Your task to perform on an android device: choose inbox layout in the gmail app Image 0: 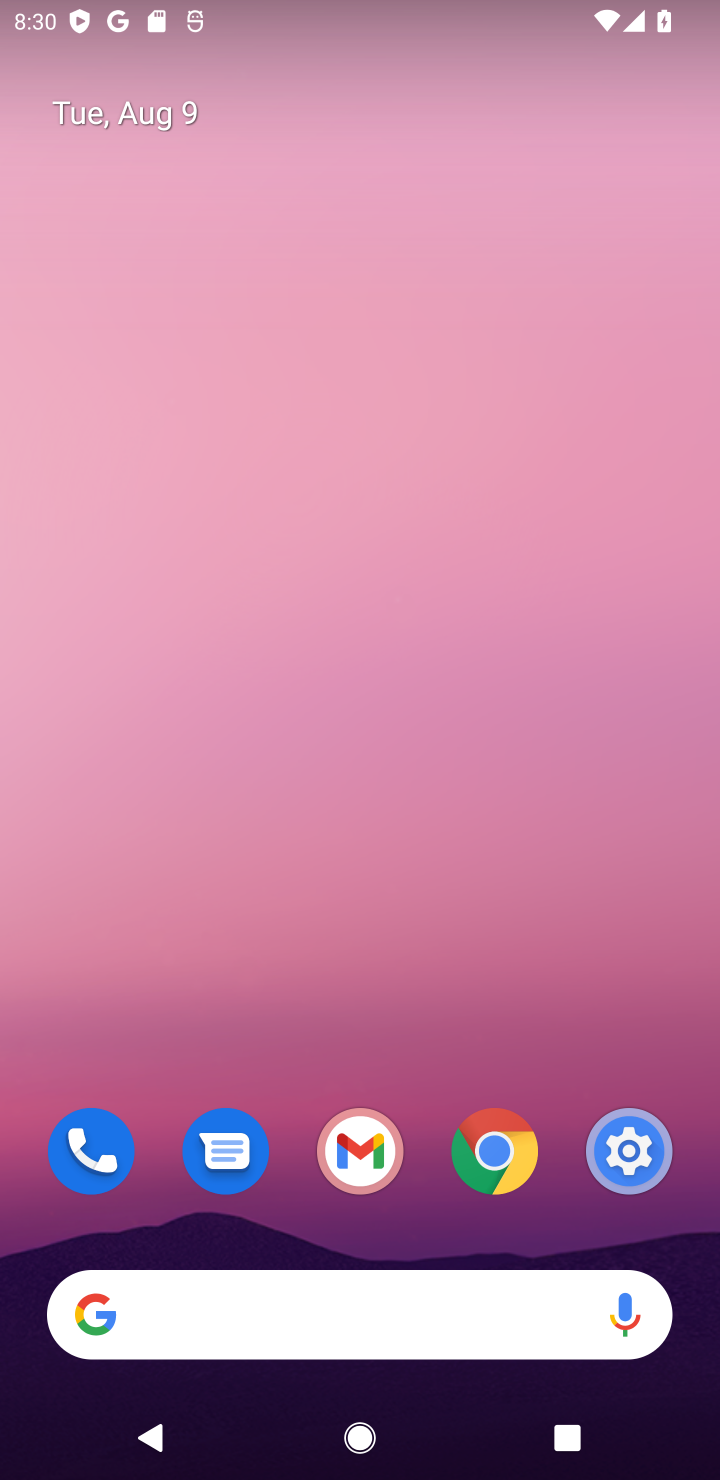
Step 0: click (346, 1148)
Your task to perform on an android device: choose inbox layout in the gmail app Image 1: 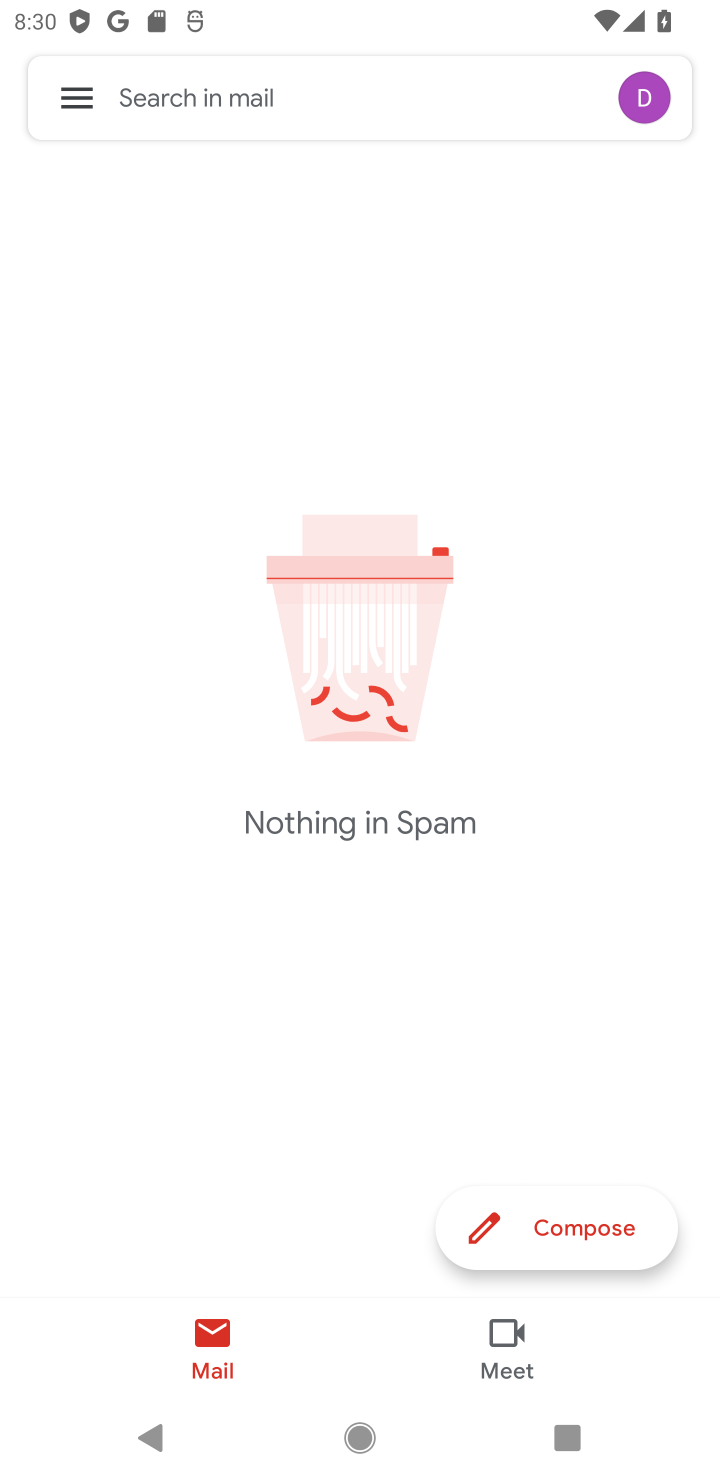
Step 1: click (90, 84)
Your task to perform on an android device: choose inbox layout in the gmail app Image 2: 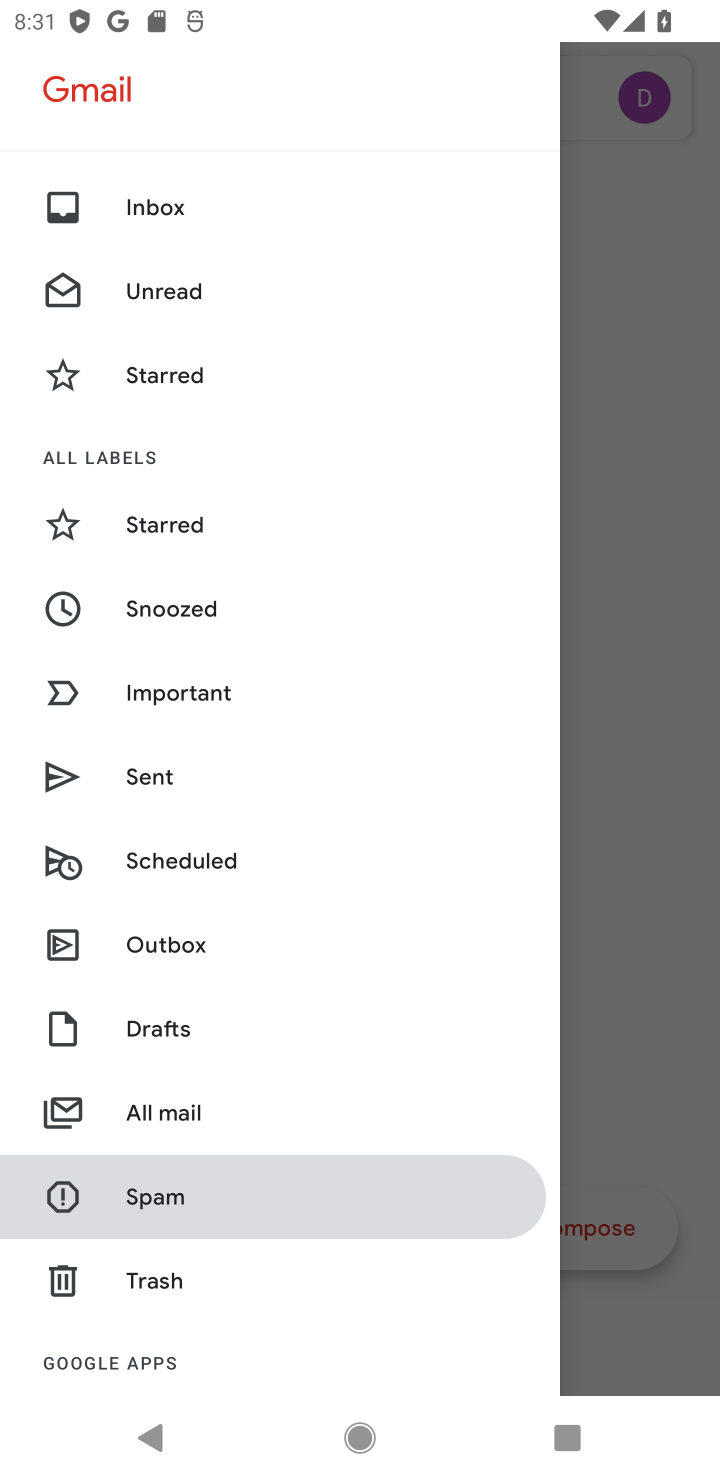
Step 2: click (118, 212)
Your task to perform on an android device: choose inbox layout in the gmail app Image 3: 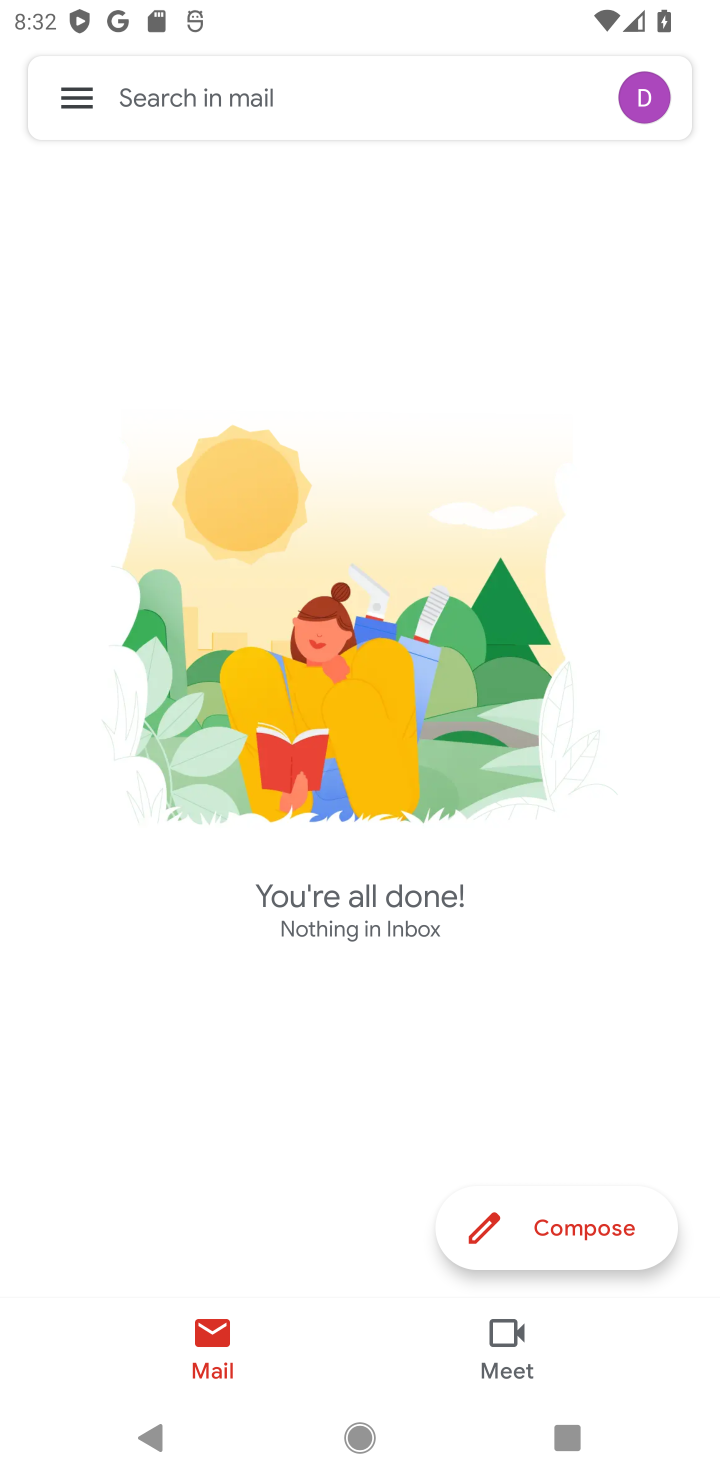
Step 3: task complete